Your task to perform on an android device: delete a single message in the gmail app Image 0: 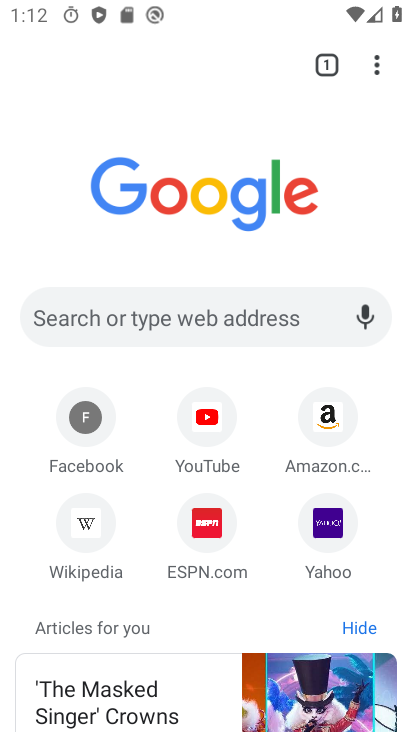
Step 0: press home button
Your task to perform on an android device: delete a single message in the gmail app Image 1: 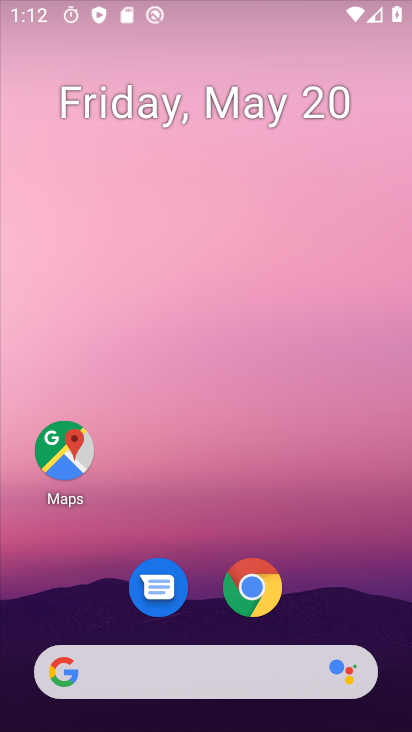
Step 1: drag from (330, 581) to (324, 115)
Your task to perform on an android device: delete a single message in the gmail app Image 2: 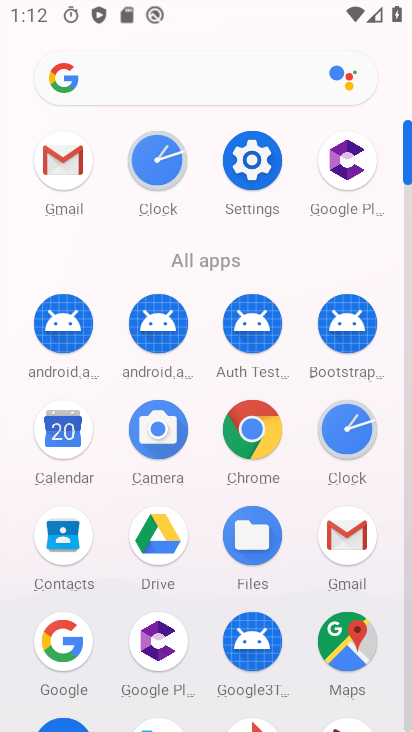
Step 2: click (67, 161)
Your task to perform on an android device: delete a single message in the gmail app Image 3: 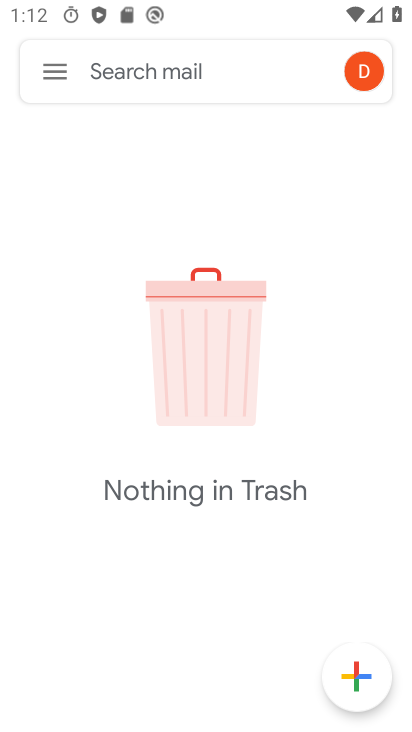
Step 3: click (61, 74)
Your task to perform on an android device: delete a single message in the gmail app Image 4: 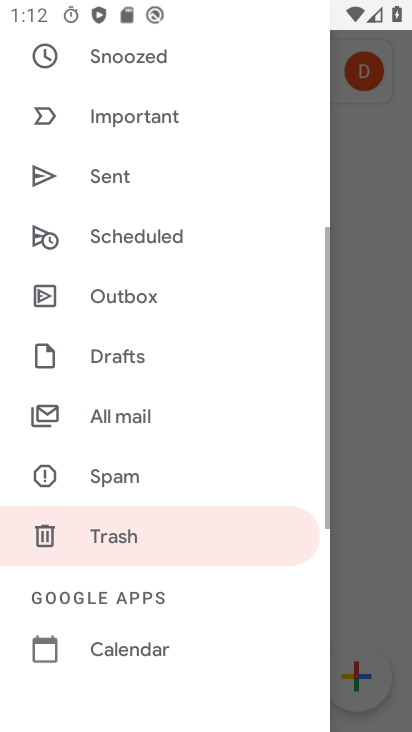
Step 4: drag from (138, 646) to (185, 245)
Your task to perform on an android device: delete a single message in the gmail app Image 5: 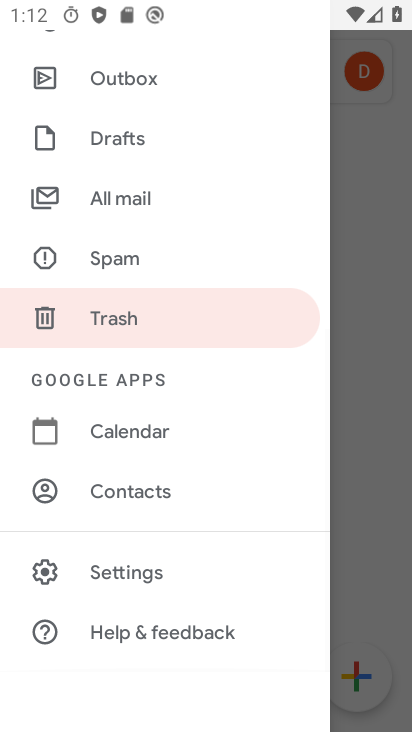
Step 5: click (118, 188)
Your task to perform on an android device: delete a single message in the gmail app Image 6: 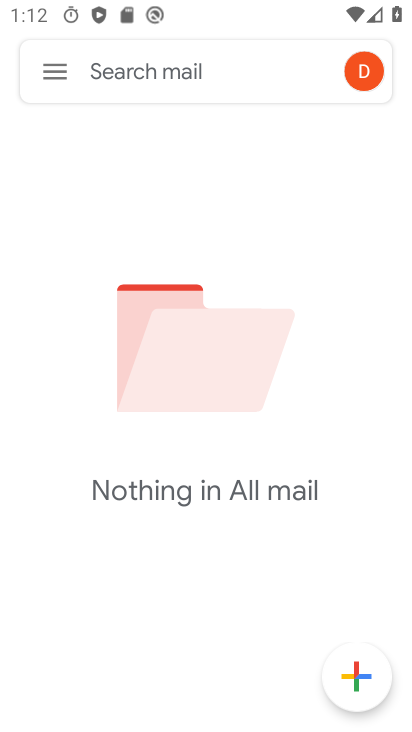
Step 6: task complete